Your task to perform on an android device: Check the weather Image 0: 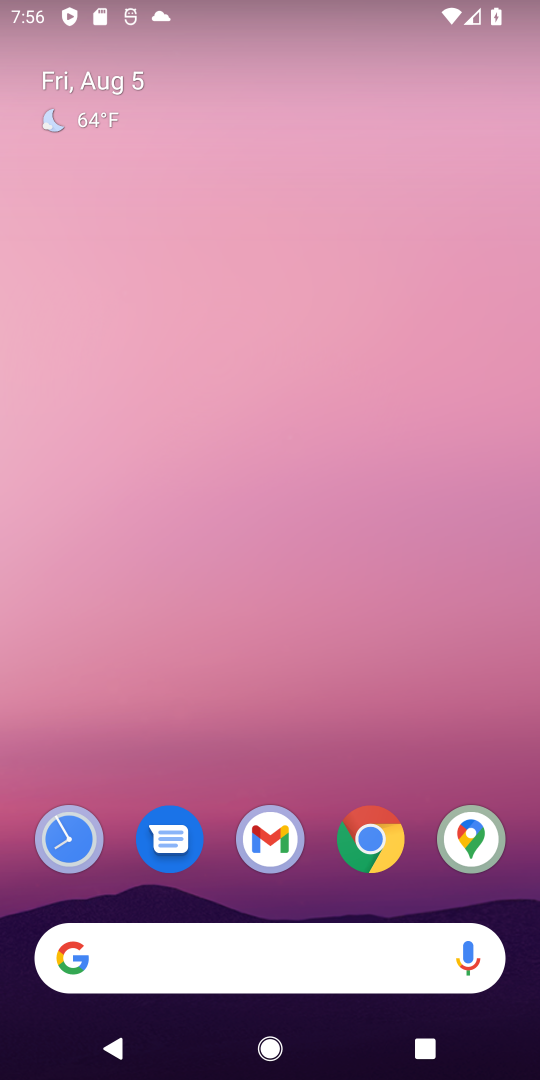
Step 0: drag from (308, 912) to (284, 167)
Your task to perform on an android device: Check the weather Image 1: 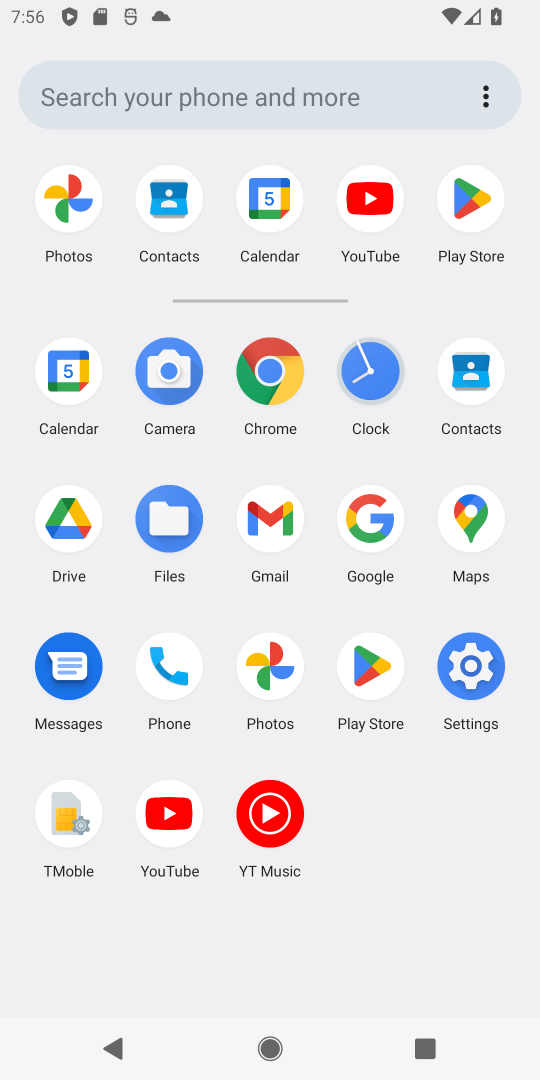
Step 1: click (376, 531)
Your task to perform on an android device: Check the weather Image 2: 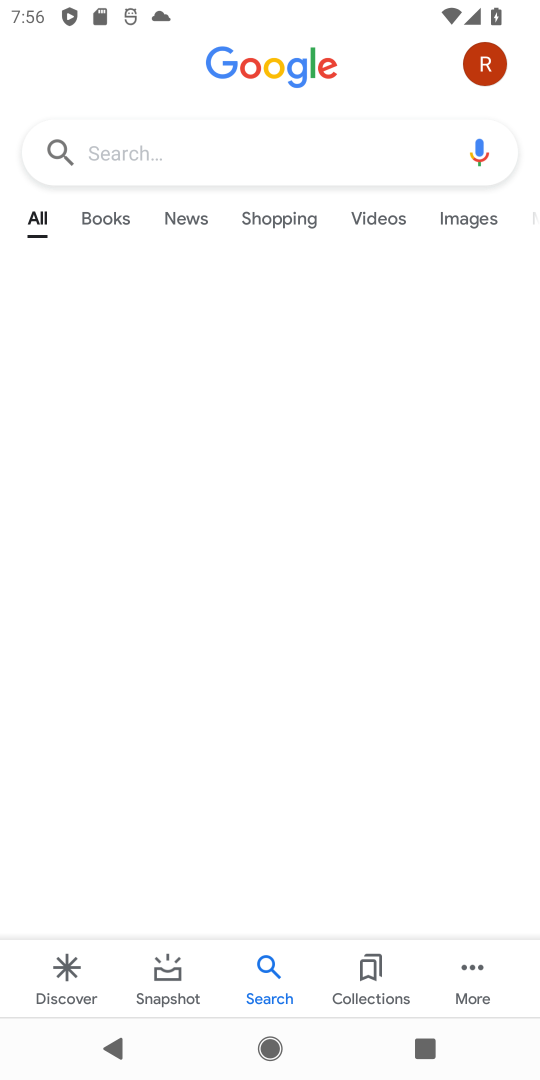
Step 2: click (162, 152)
Your task to perform on an android device: Check the weather Image 3: 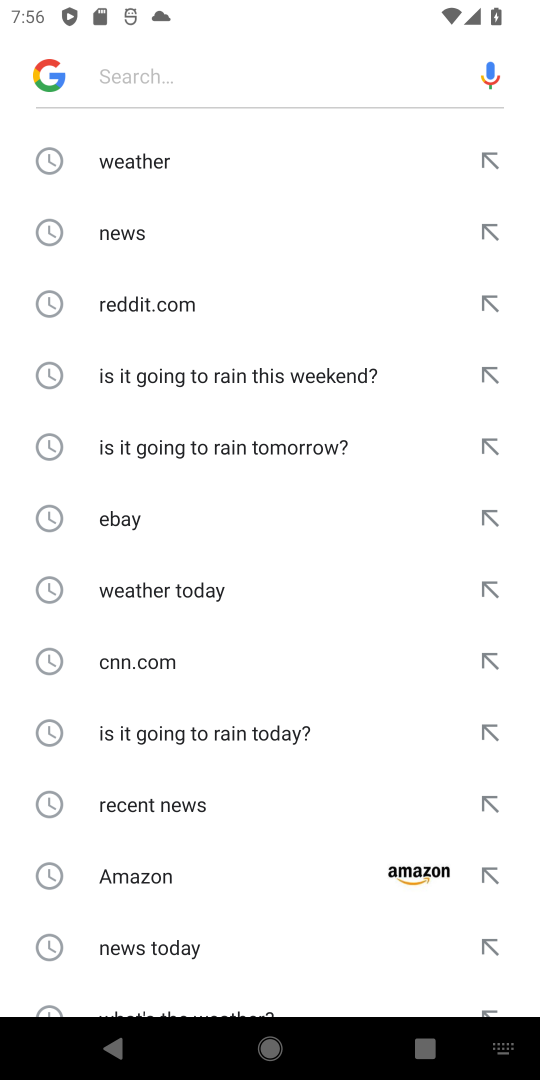
Step 3: click (116, 164)
Your task to perform on an android device: Check the weather Image 4: 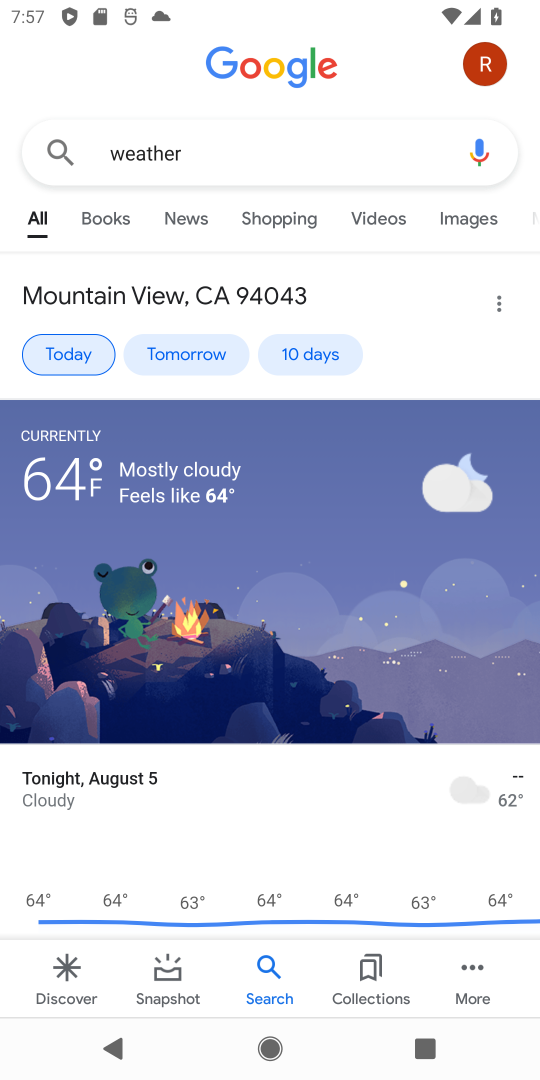
Step 4: click (63, 347)
Your task to perform on an android device: Check the weather Image 5: 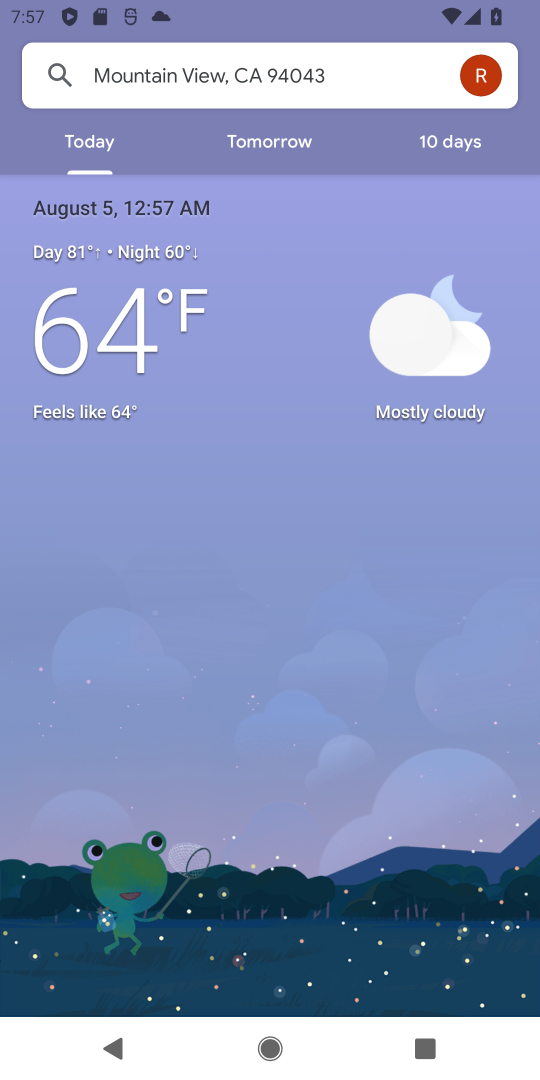
Step 5: task complete